Your task to perform on an android device: change the clock display to show seconds Image 0: 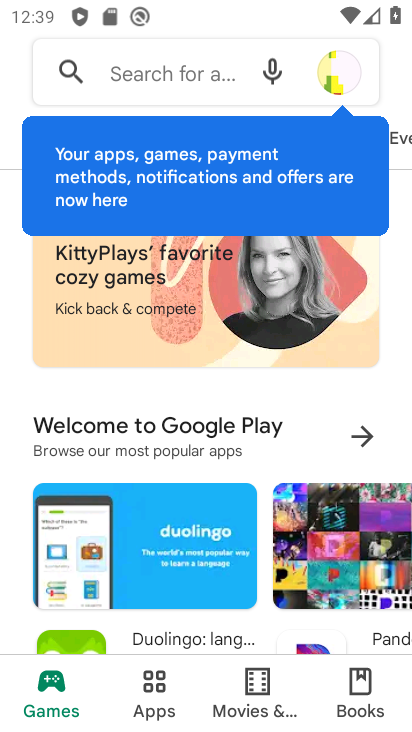
Step 0: press home button
Your task to perform on an android device: change the clock display to show seconds Image 1: 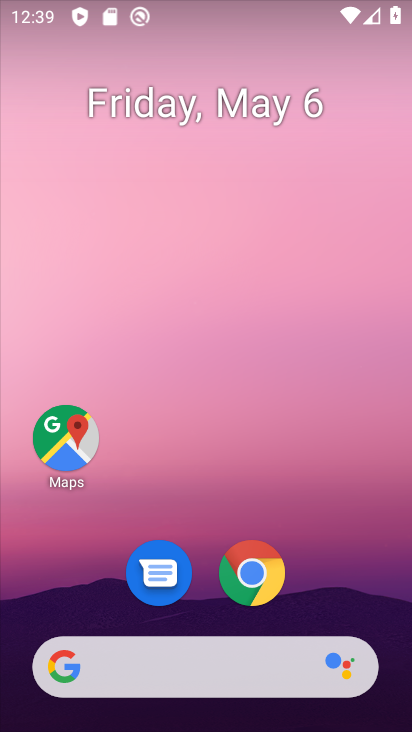
Step 1: drag from (178, 677) to (372, 213)
Your task to perform on an android device: change the clock display to show seconds Image 2: 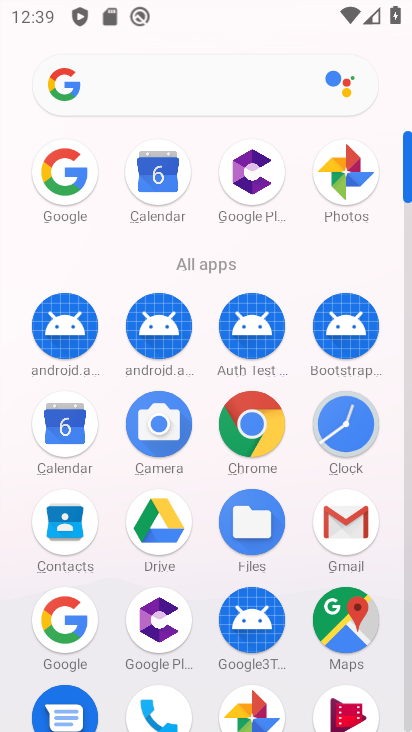
Step 2: click (330, 424)
Your task to perform on an android device: change the clock display to show seconds Image 3: 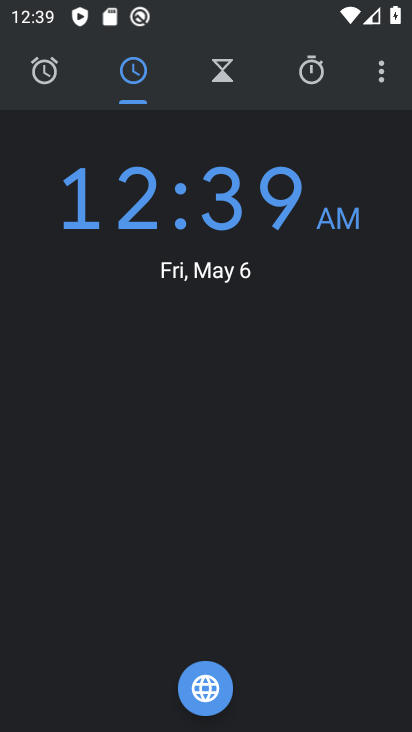
Step 3: click (394, 69)
Your task to perform on an android device: change the clock display to show seconds Image 4: 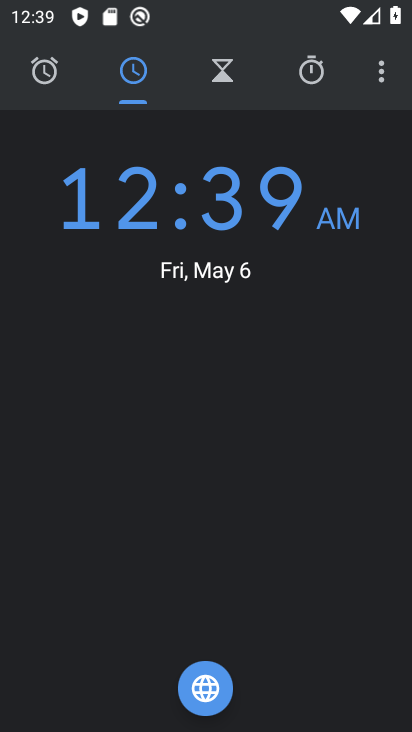
Step 4: click (391, 75)
Your task to perform on an android device: change the clock display to show seconds Image 5: 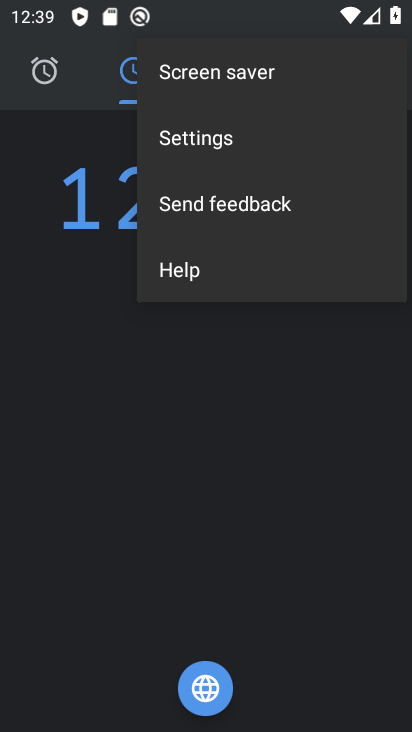
Step 5: click (239, 145)
Your task to perform on an android device: change the clock display to show seconds Image 6: 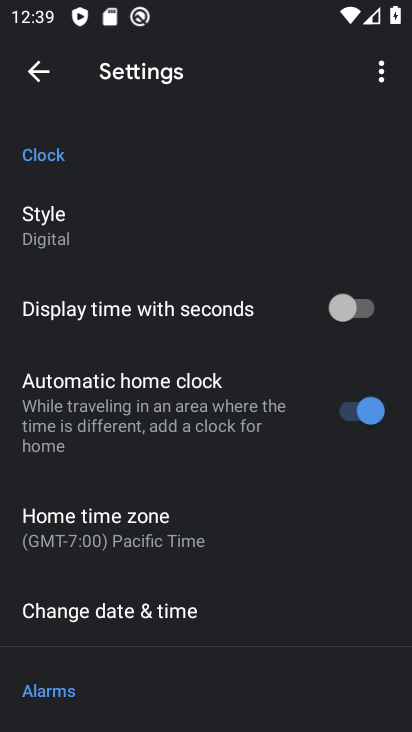
Step 6: click (365, 309)
Your task to perform on an android device: change the clock display to show seconds Image 7: 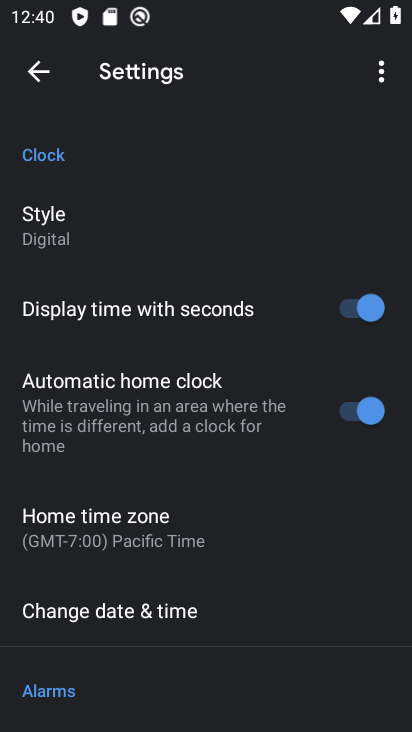
Step 7: task complete